Your task to perform on an android device: When is my next appointment? Image 0: 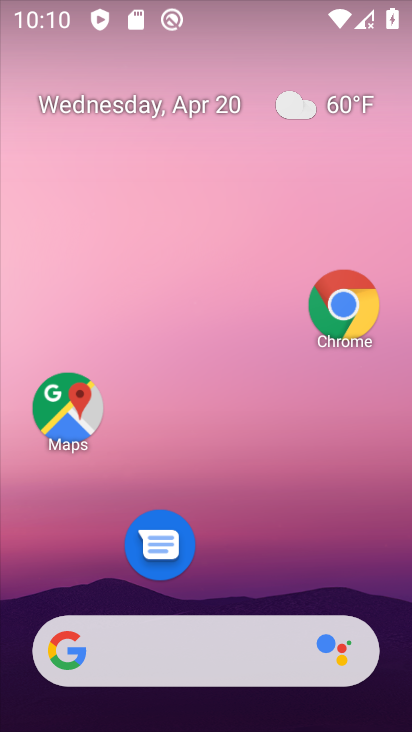
Step 0: drag from (255, 660) to (259, 245)
Your task to perform on an android device: When is my next appointment? Image 1: 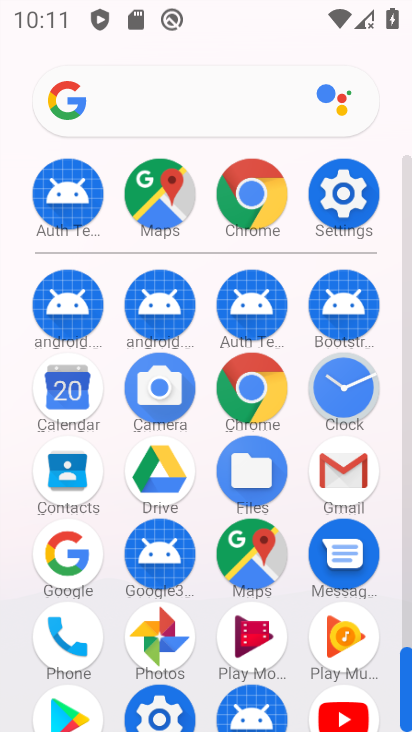
Step 1: click (73, 398)
Your task to perform on an android device: When is my next appointment? Image 2: 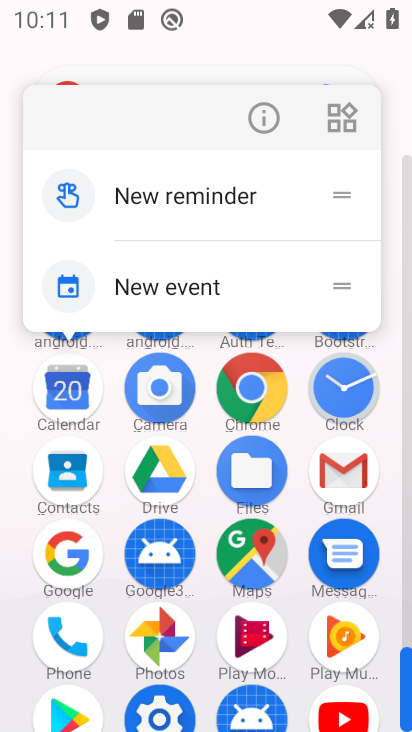
Step 2: click (85, 415)
Your task to perform on an android device: When is my next appointment? Image 3: 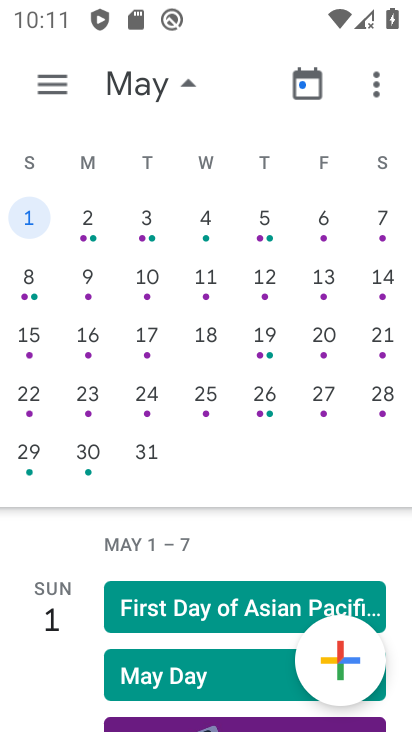
Step 3: drag from (89, 325) to (404, 463)
Your task to perform on an android device: When is my next appointment? Image 4: 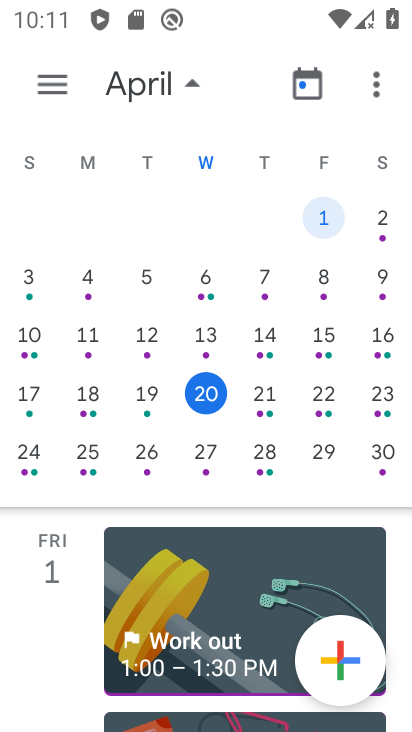
Step 4: click (212, 399)
Your task to perform on an android device: When is my next appointment? Image 5: 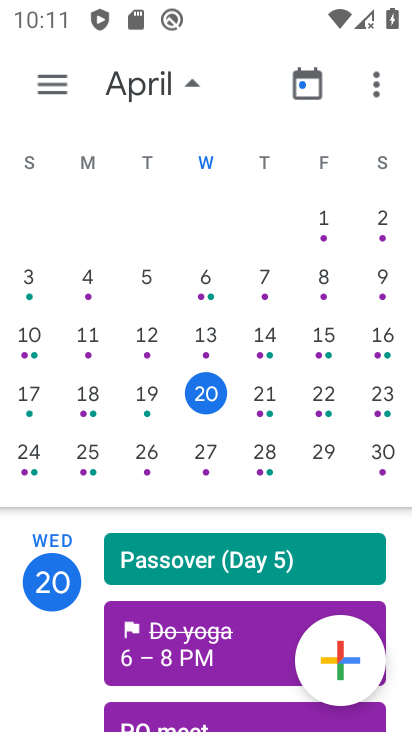
Step 5: task complete